Your task to perform on an android device: Open Reddit.com Image 0: 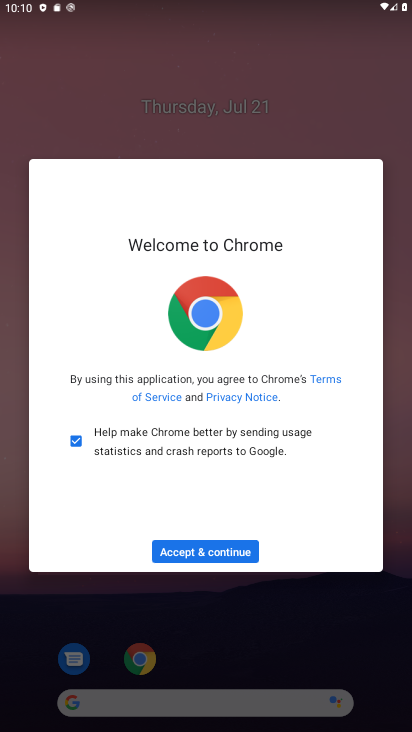
Step 0: click (234, 551)
Your task to perform on an android device: Open Reddit.com Image 1: 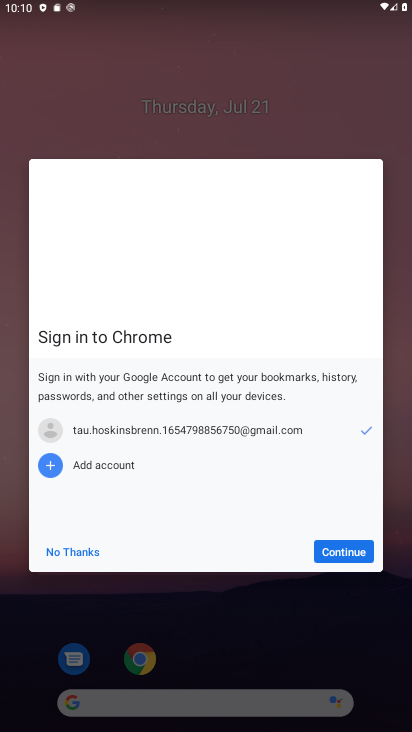
Step 1: click (361, 557)
Your task to perform on an android device: Open Reddit.com Image 2: 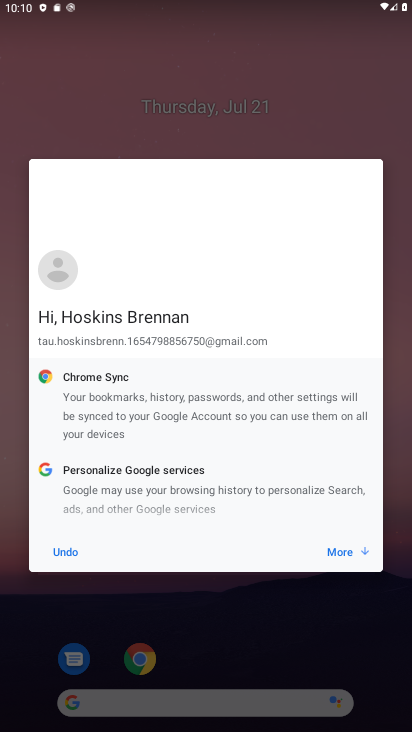
Step 2: click (361, 557)
Your task to perform on an android device: Open Reddit.com Image 3: 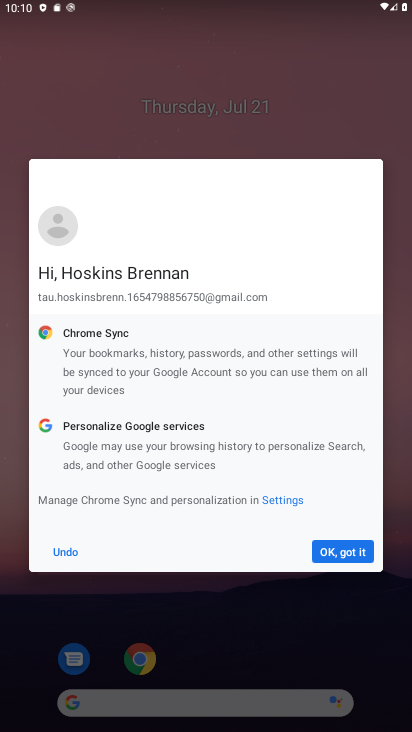
Step 3: click (361, 557)
Your task to perform on an android device: Open Reddit.com Image 4: 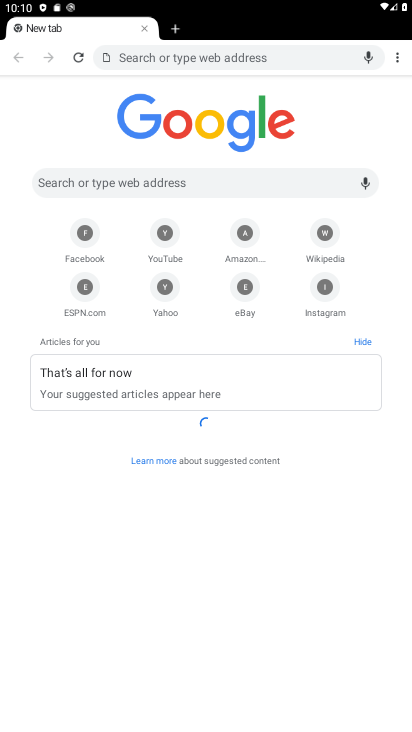
Step 4: click (184, 47)
Your task to perform on an android device: Open Reddit.com Image 5: 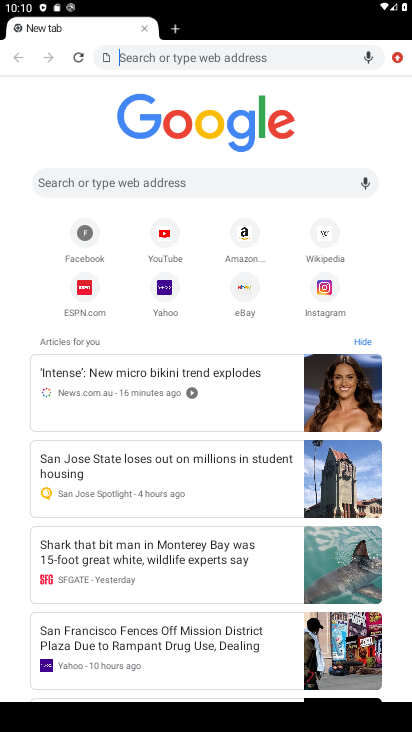
Step 5: type "Reddit.com"
Your task to perform on an android device: Open Reddit.com Image 6: 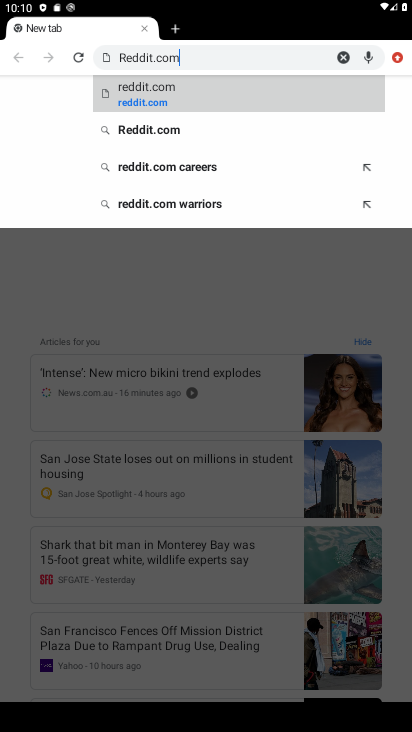
Step 6: click (164, 106)
Your task to perform on an android device: Open Reddit.com Image 7: 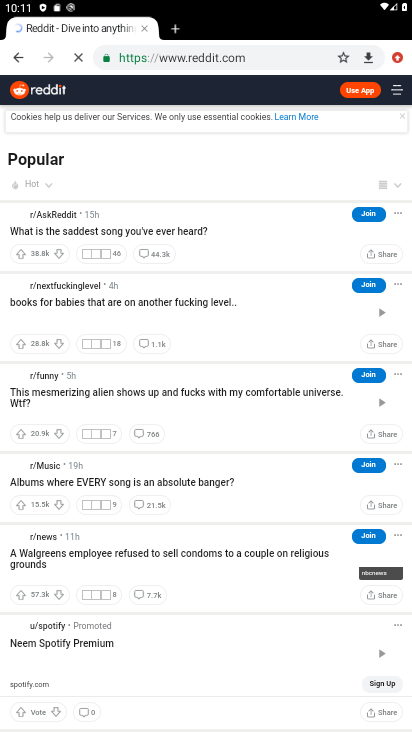
Step 7: task complete